Your task to perform on an android device: Go to accessibility settings Image 0: 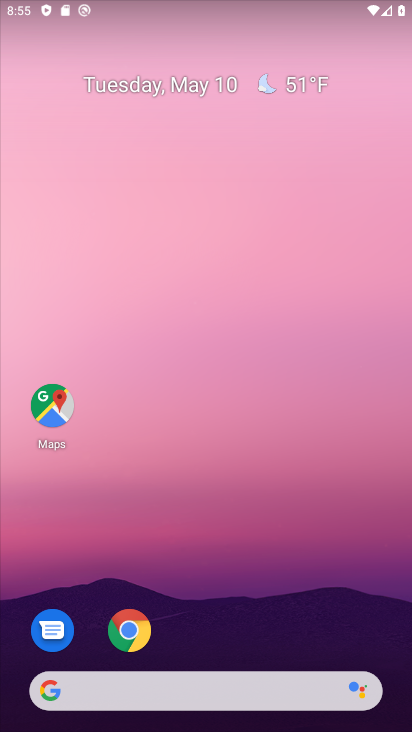
Step 0: drag from (285, 632) to (211, 158)
Your task to perform on an android device: Go to accessibility settings Image 1: 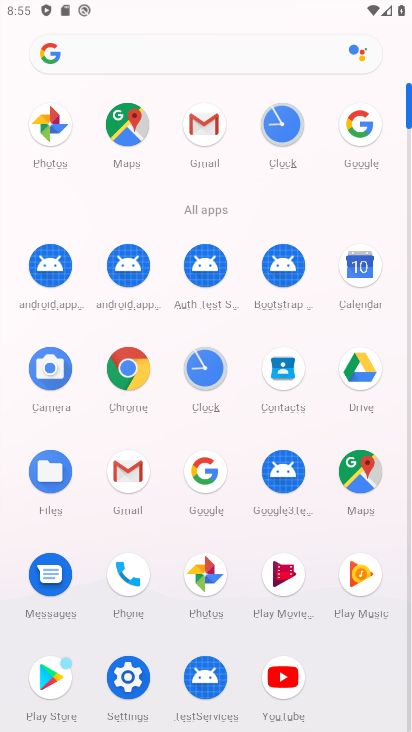
Step 1: click (126, 660)
Your task to perform on an android device: Go to accessibility settings Image 2: 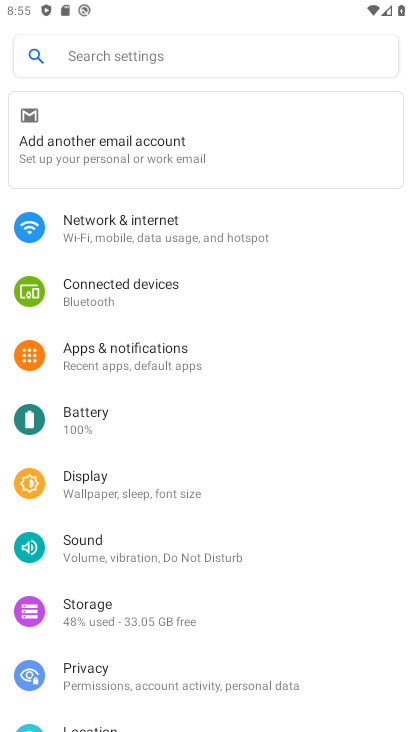
Step 2: drag from (102, 538) to (111, 269)
Your task to perform on an android device: Go to accessibility settings Image 3: 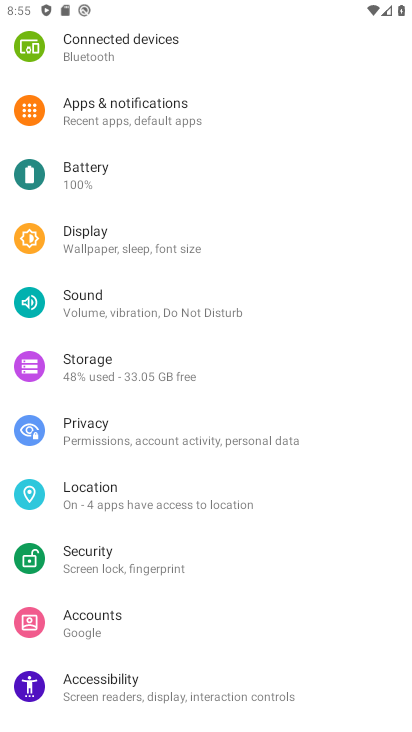
Step 3: click (155, 674)
Your task to perform on an android device: Go to accessibility settings Image 4: 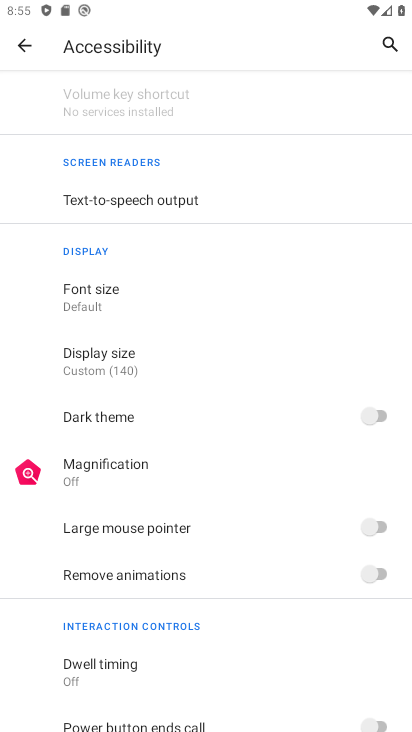
Step 4: task complete